Your task to perform on an android device: change notifications settings Image 0: 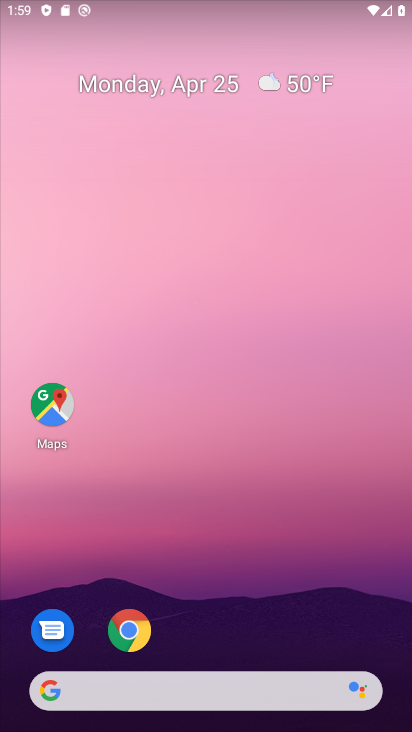
Step 0: drag from (202, 613) to (231, 187)
Your task to perform on an android device: change notifications settings Image 1: 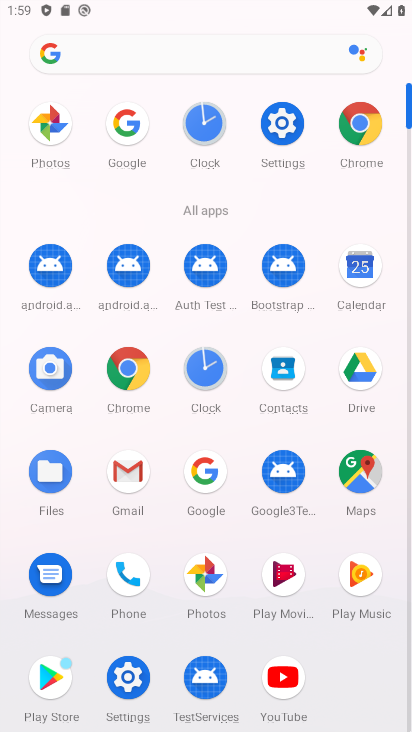
Step 1: click (283, 110)
Your task to perform on an android device: change notifications settings Image 2: 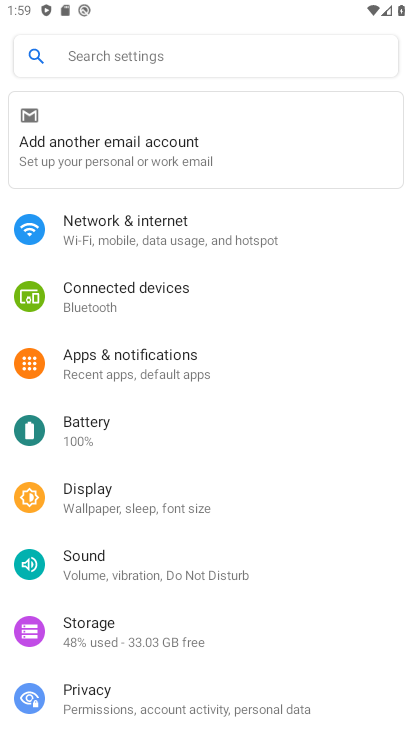
Step 2: click (165, 368)
Your task to perform on an android device: change notifications settings Image 3: 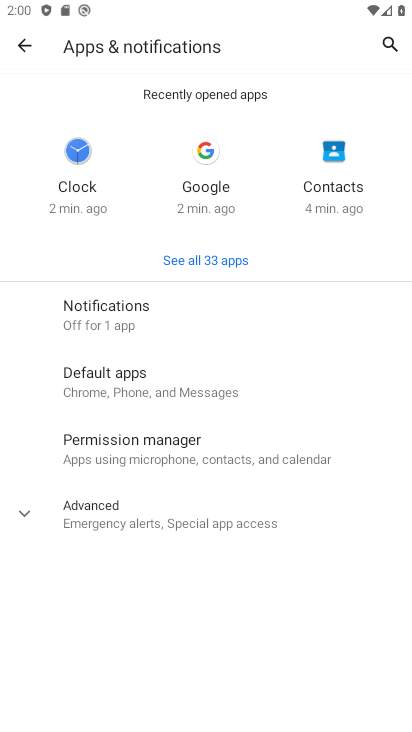
Step 3: click (142, 318)
Your task to perform on an android device: change notifications settings Image 4: 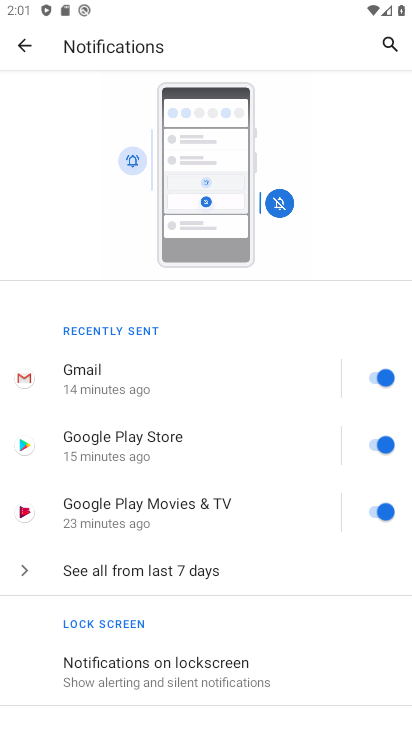
Step 4: drag from (107, 611) to (184, 116)
Your task to perform on an android device: change notifications settings Image 5: 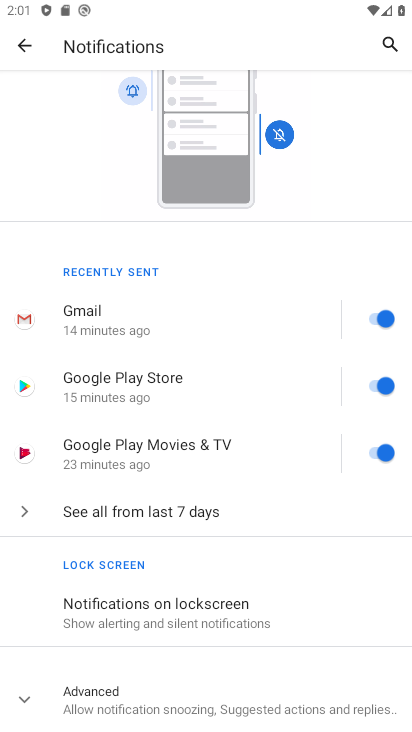
Step 5: click (102, 683)
Your task to perform on an android device: change notifications settings Image 6: 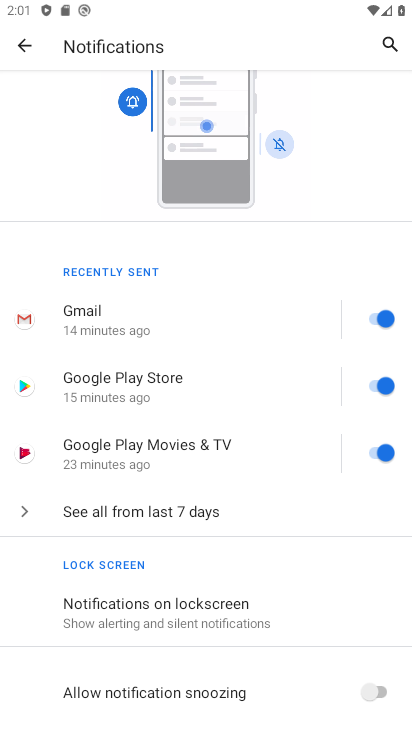
Step 6: click (381, 454)
Your task to perform on an android device: change notifications settings Image 7: 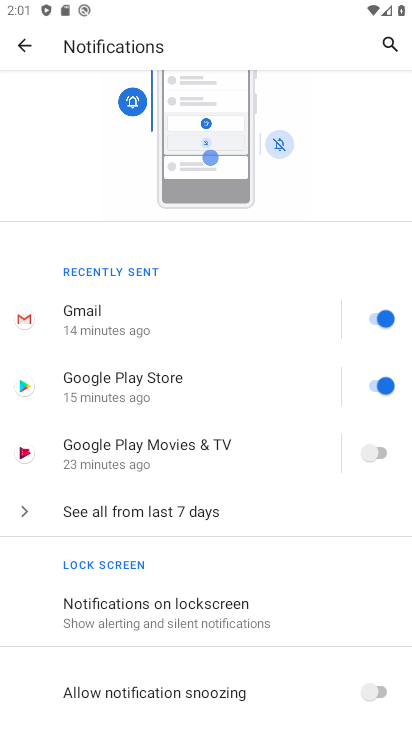
Step 7: click (385, 396)
Your task to perform on an android device: change notifications settings Image 8: 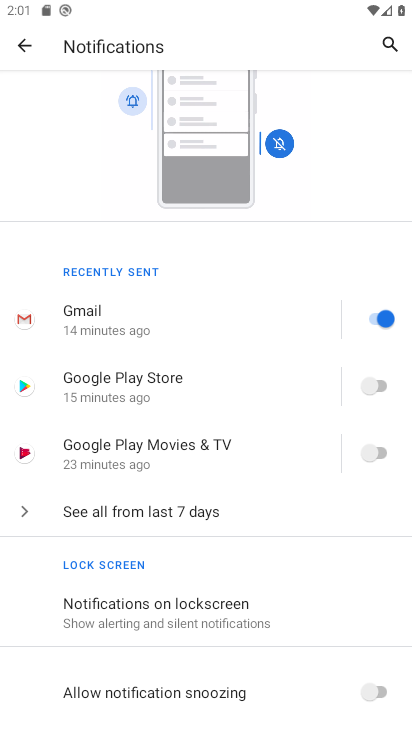
Step 8: click (384, 308)
Your task to perform on an android device: change notifications settings Image 9: 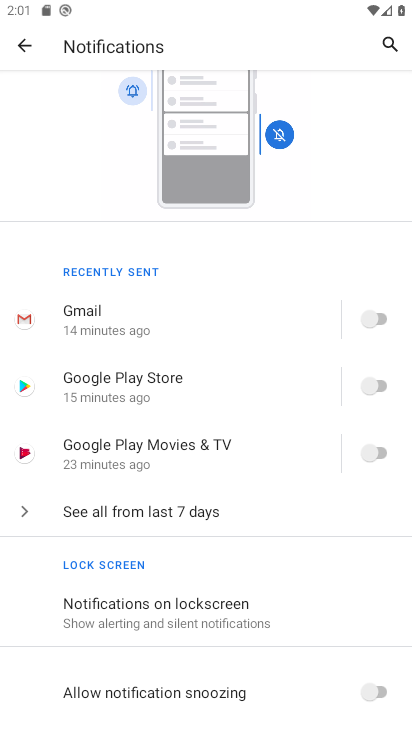
Step 9: task complete